Your task to perform on an android device: Open notification settings Image 0: 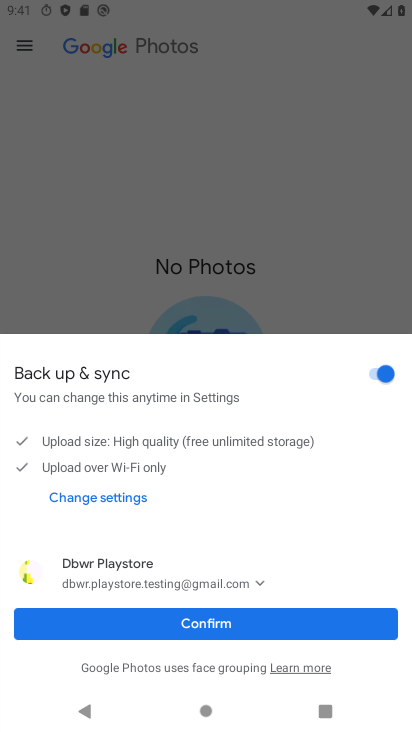
Step 0: click (230, 626)
Your task to perform on an android device: Open notification settings Image 1: 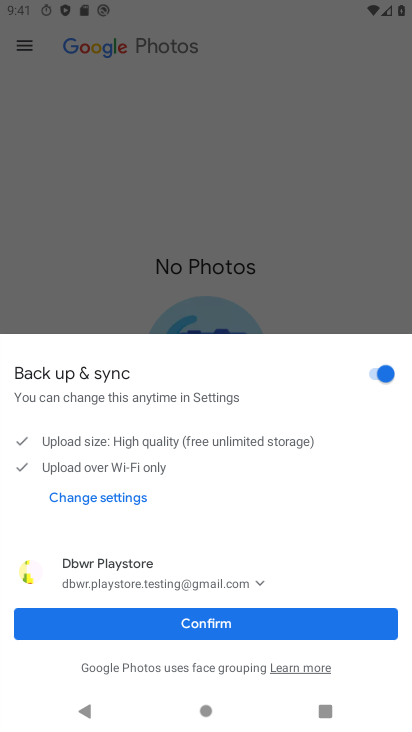
Step 1: click (230, 625)
Your task to perform on an android device: Open notification settings Image 2: 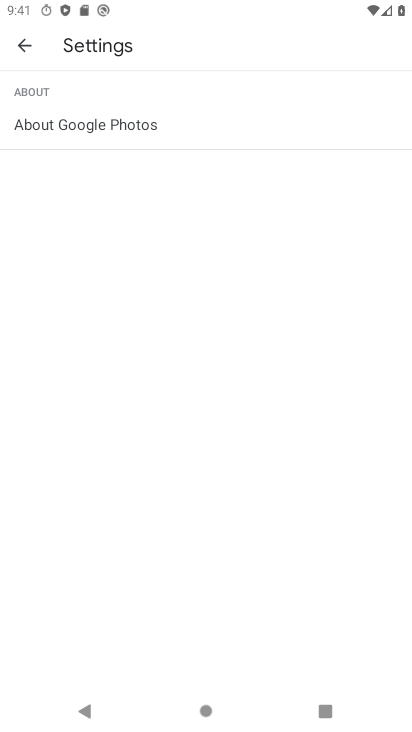
Step 2: click (17, 35)
Your task to perform on an android device: Open notification settings Image 3: 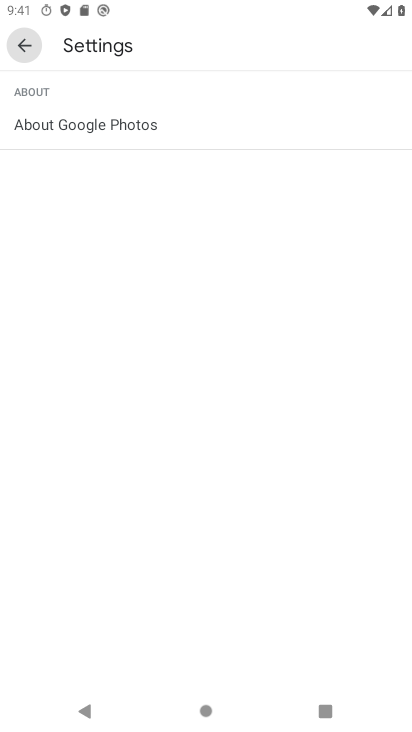
Step 3: click (19, 41)
Your task to perform on an android device: Open notification settings Image 4: 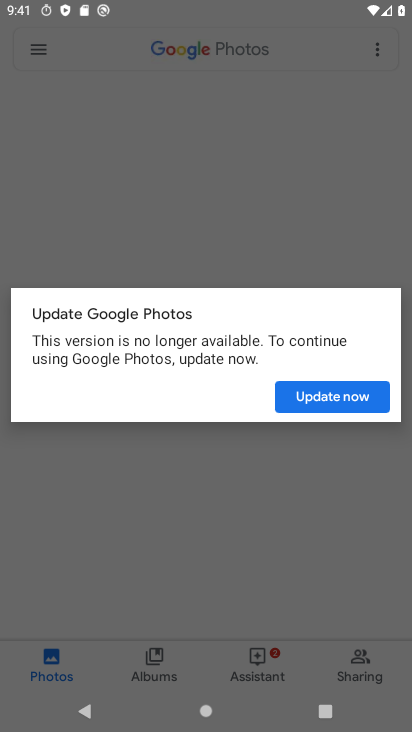
Step 4: press home button
Your task to perform on an android device: Open notification settings Image 5: 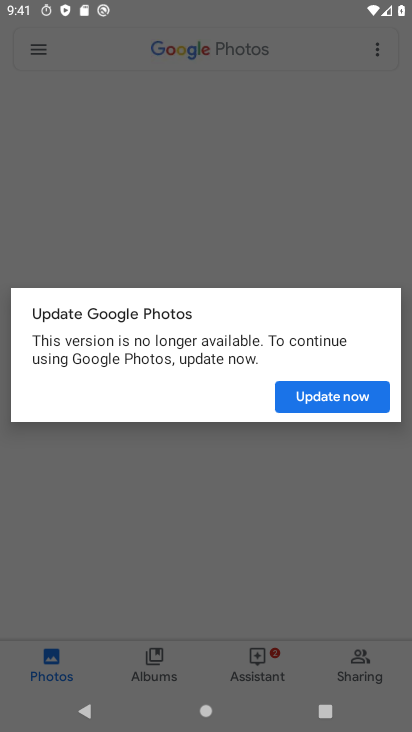
Step 5: press home button
Your task to perform on an android device: Open notification settings Image 6: 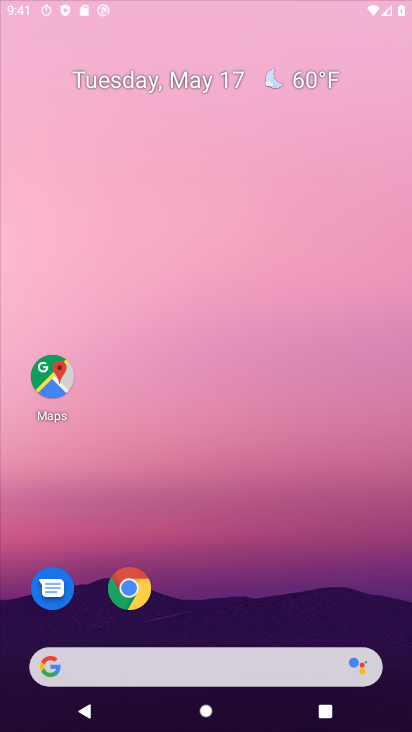
Step 6: press home button
Your task to perform on an android device: Open notification settings Image 7: 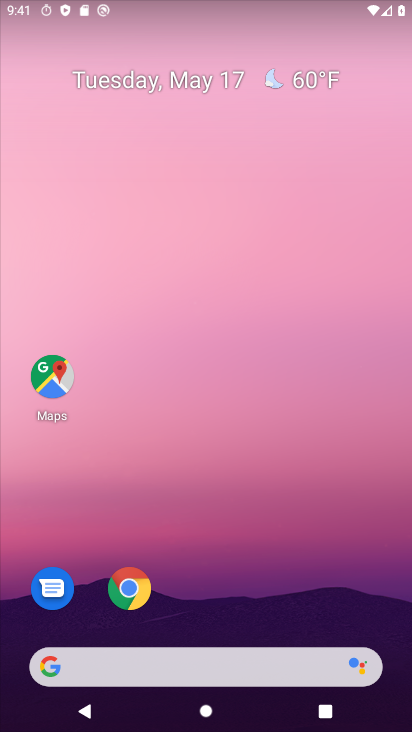
Step 7: press home button
Your task to perform on an android device: Open notification settings Image 8: 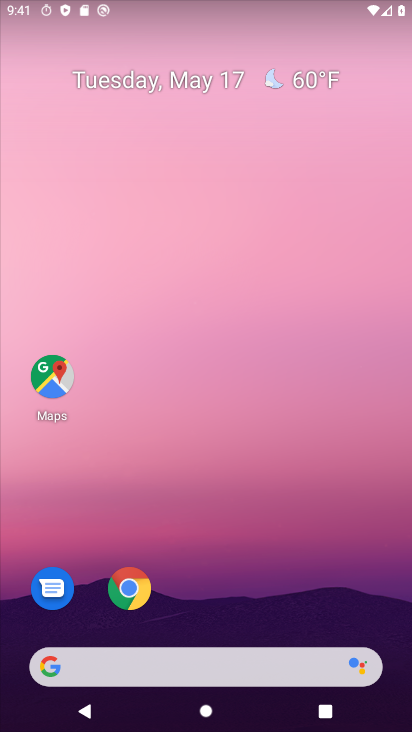
Step 8: drag from (279, 717) to (170, 55)
Your task to perform on an android device: Open notification settings Image 9: 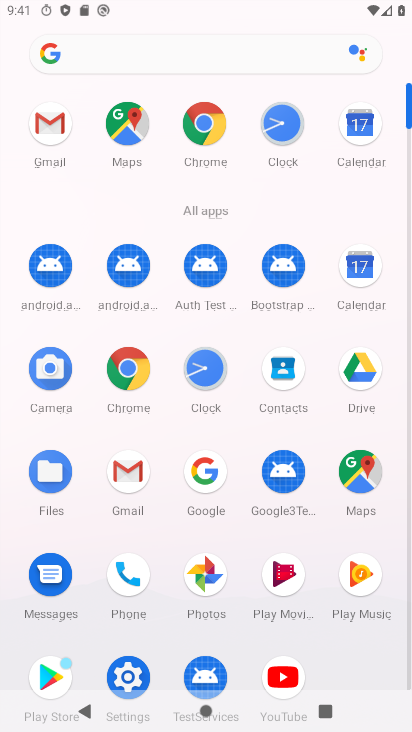
Step 9: click (133, 680)
Your task to perform on an android device: Open notification settings Image 10: 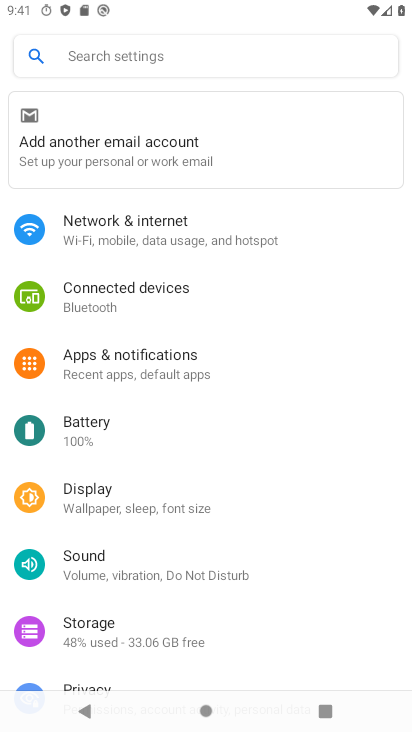
Step 10: drag from (155, 532) to (131, 155)
Your task to perform on an android device: Open notification settings Image 11: 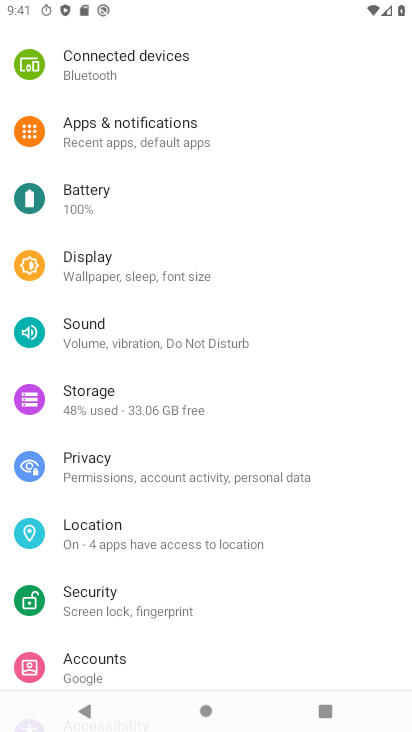
Step 11: drag from (175, 535) to (119, 194)
Your task to perform on an android device: Open notification settings Image 12: 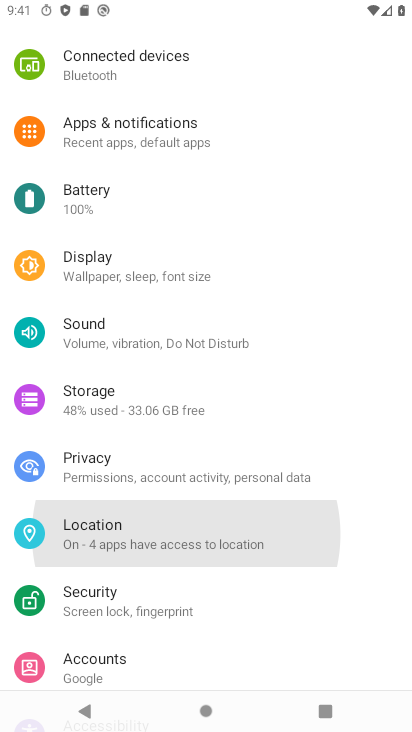
Step 12: drag from (204, 477) to (174, 212)
Your task to perform on an android device: Open notification settings Image 13: 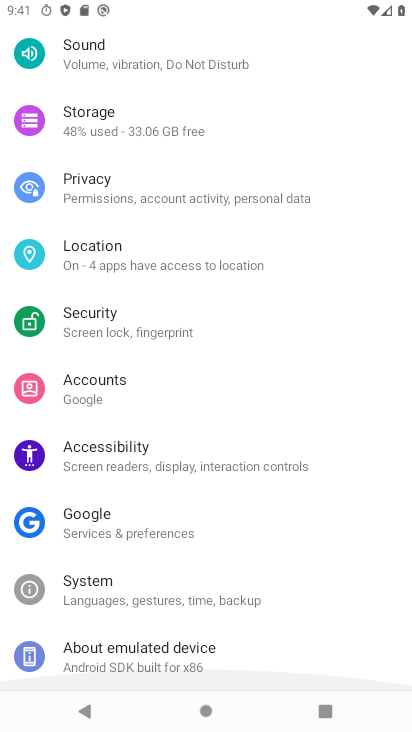
Step 13: drag from (249, 464) to (222, 209)
Your task to perform on an android device: Open notification settings Image 14: 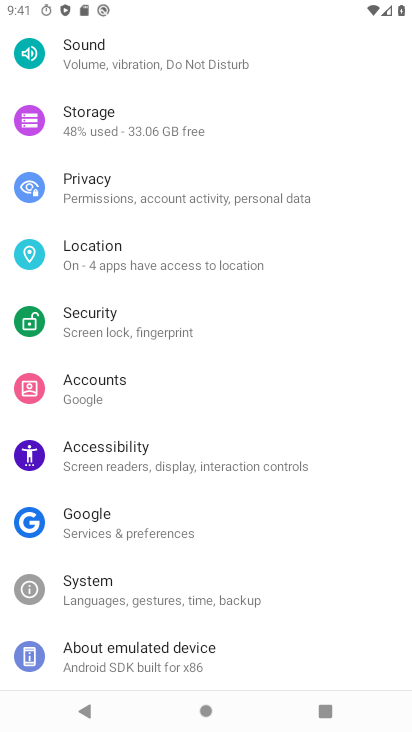
Step 14: drag from (108, 172) to (173, 644)
Your task to perform on an android device: Open notification settings Image 15: 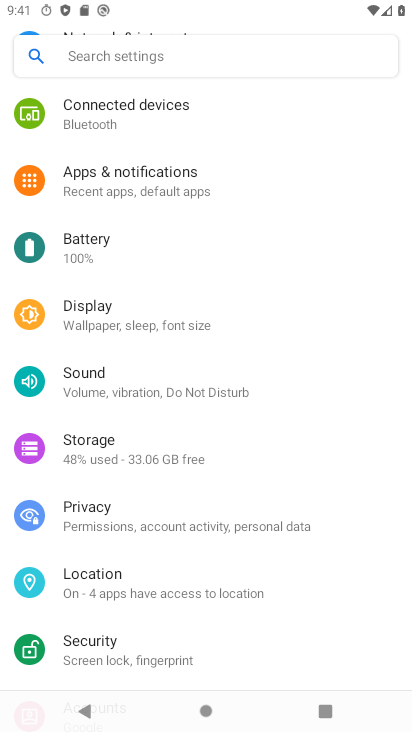
Step 15: click (147, 178)
Your task to perform on an android device: Open notification settings Image 16: 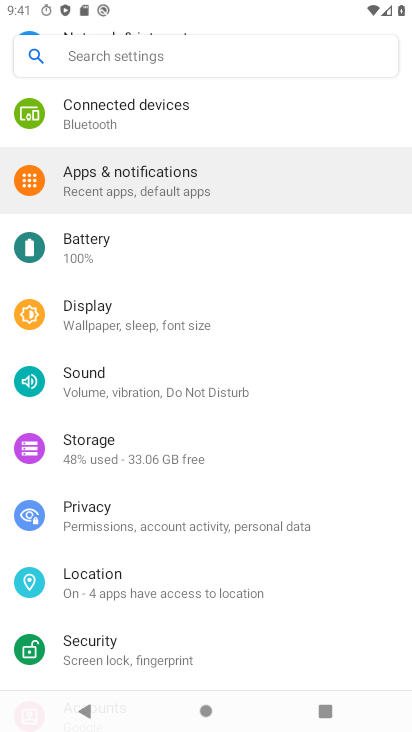
Step 16: click (147, 178)
Your task to perform on an android device: Open notification settings Image 17: 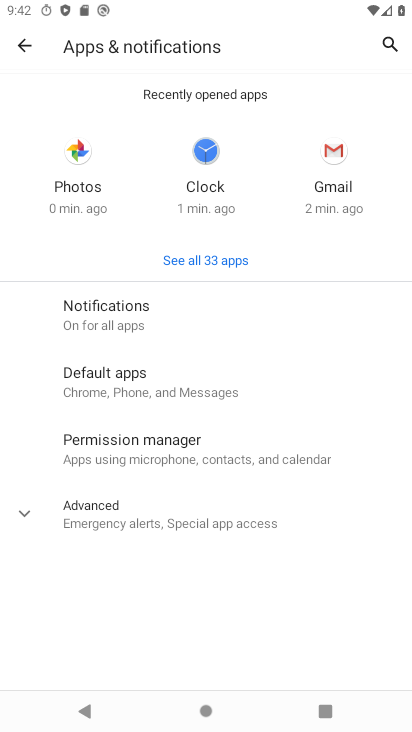
Step 17: click (101, 326)
Your task to perform on an android device: Open notification settings Image 18: 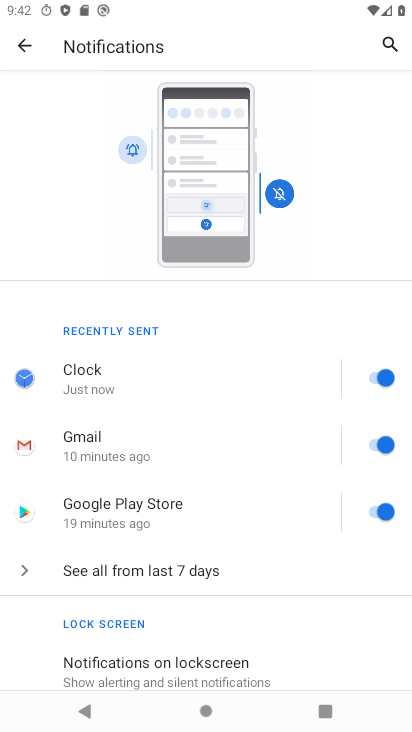
Step 18: drag from (181, 560) to (85, 182)
Your task to perform on an android device: Open notification settings Image 19: 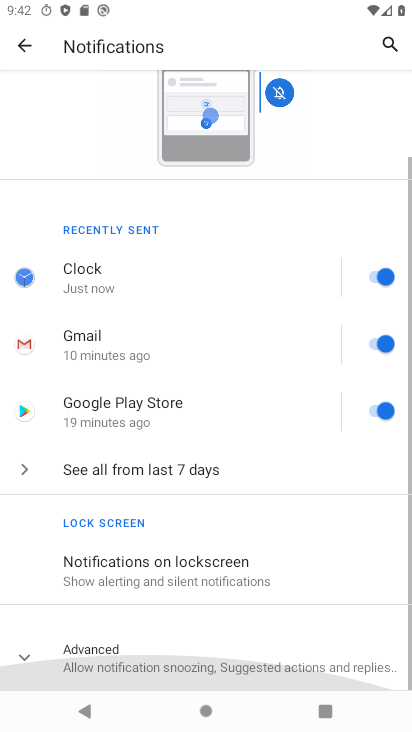
Step 19: drag from (240, 574) to (186, 199)
Your task to perform on an android device: Open notification settings Image 20: 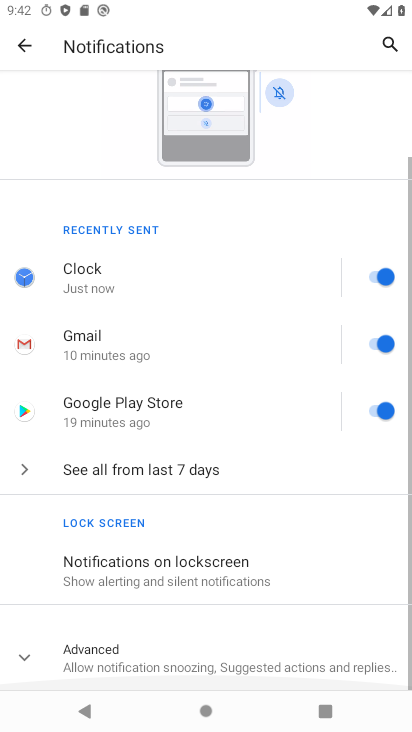
Step 20: drag from (170, 181) to (156, 15)
Your task to perform on an android device: Open notification settings Image 21: 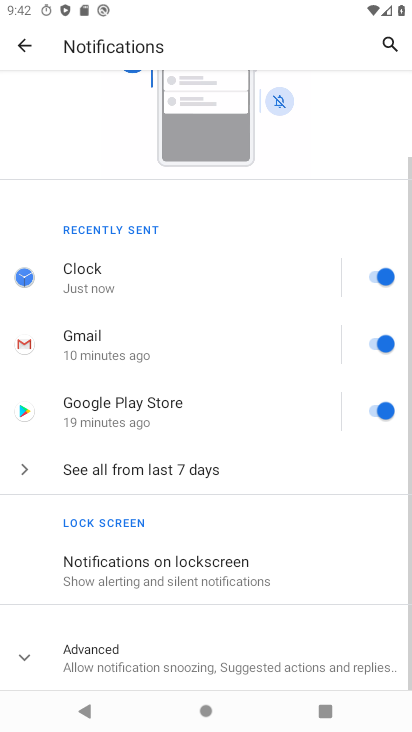
Step 21: drag from (208, 421) to (165, 76)
Your task to perform on an android device: Open notification settings Image 22: 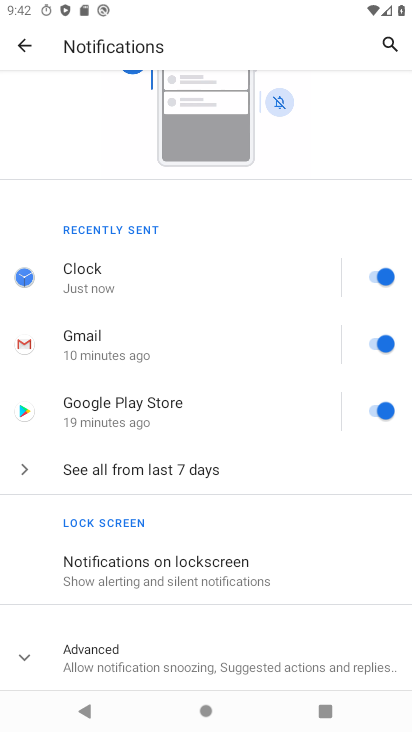
Step 22: click (188, 279)
Your task to perform on an android device: Open notification settings Image 23: 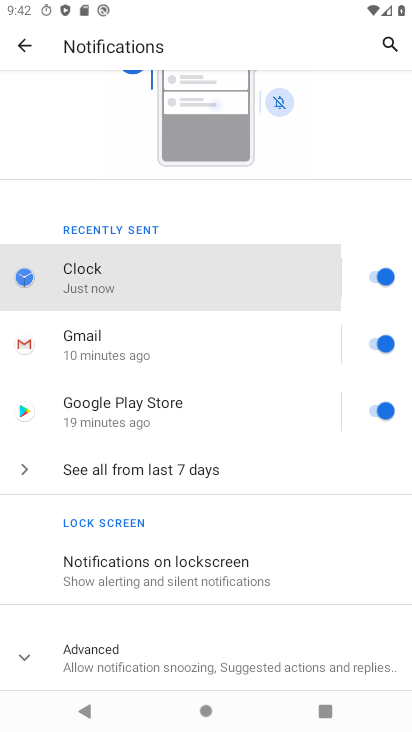
Step 23: drag from (223, 494) to (184, 235)
Your task to perform on an android device: Open notification settings Image 24: 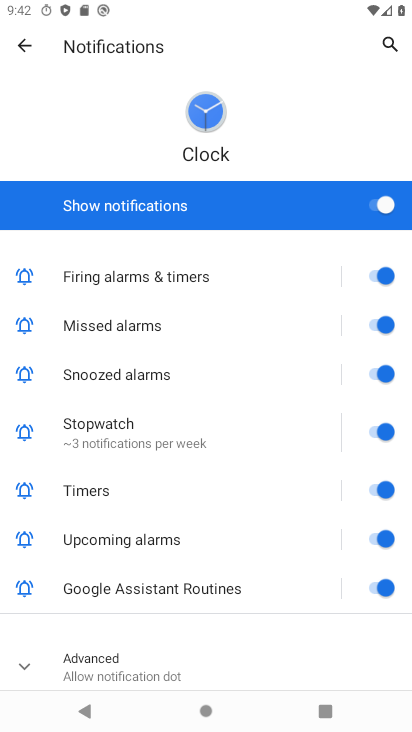
Step 24: click (20, 41)
Your task to perform on an android device: Open notification settings Image 25: 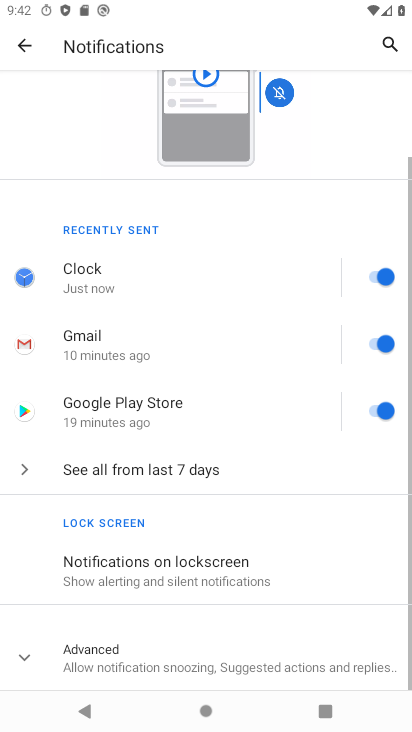
Step 25: click (104, 273)
Your task to perform on an android device: Open notification settings Image 26: 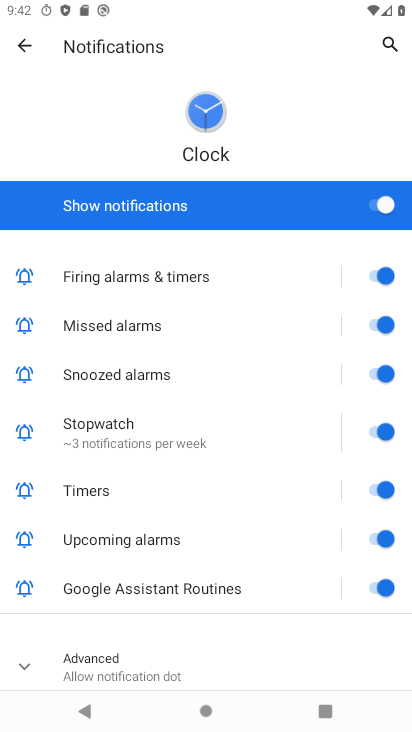
Step 26: click (25, 42)
Your task to perform on an android device: Open notification settings Image 27: 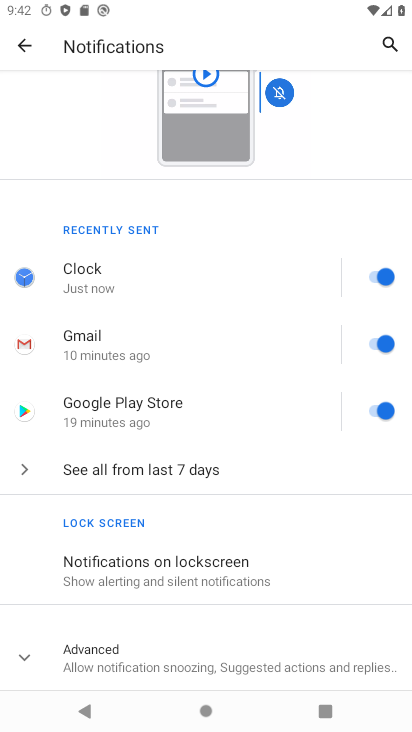
Step 27: click (101, 339)
Your task to perform on an android device: Open notification settings Image 28: 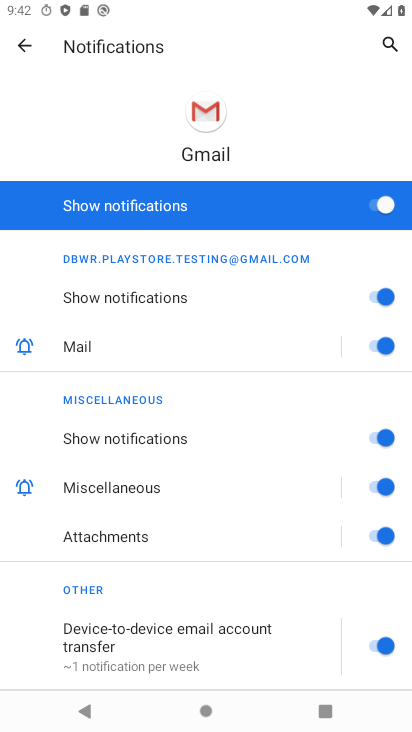
Step 28: click (23, 39)
Your task to perform on an android device: Open notification settings Image 29: 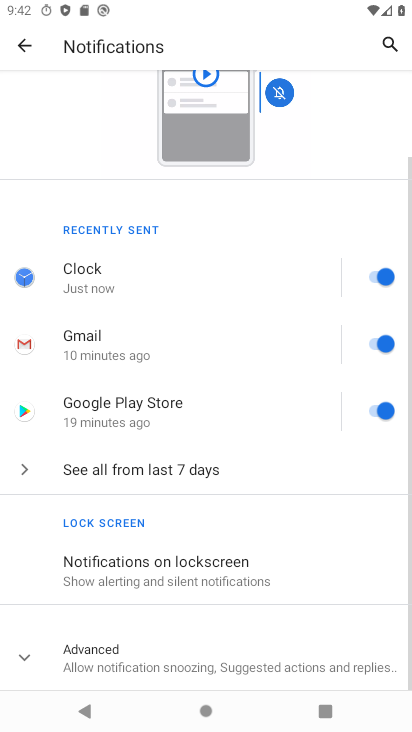
Step 29: click (170, 411)
Your task to perform on an android device: Open notification settings Image 30: 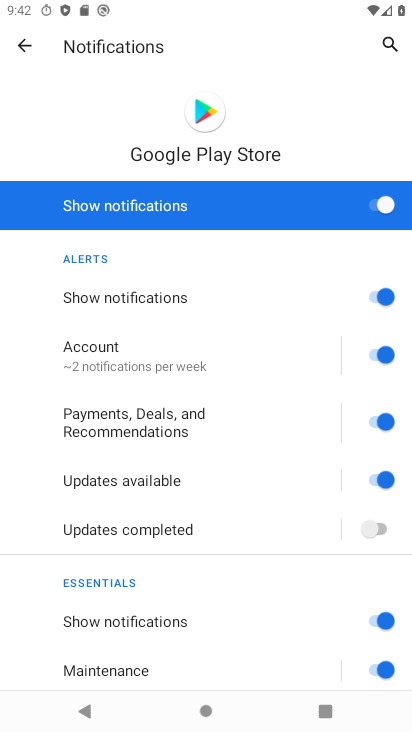
Step 30: click (19, 49)
Your task to perform on an android device: Open notification settings Image 31: 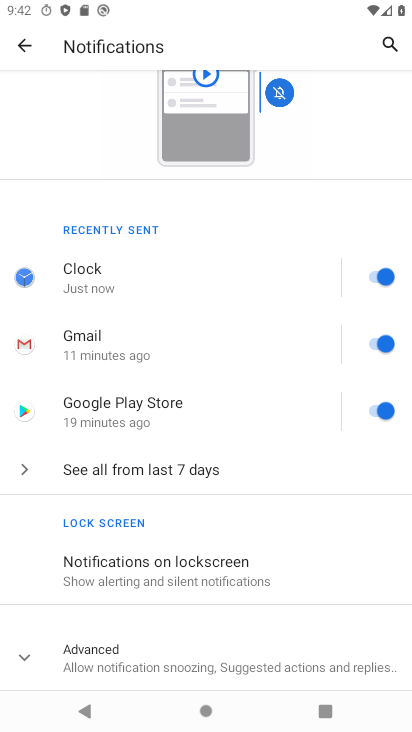
Step 31: click (212, 462)
Your task to perform on an android device: Open notification settings Image 32: 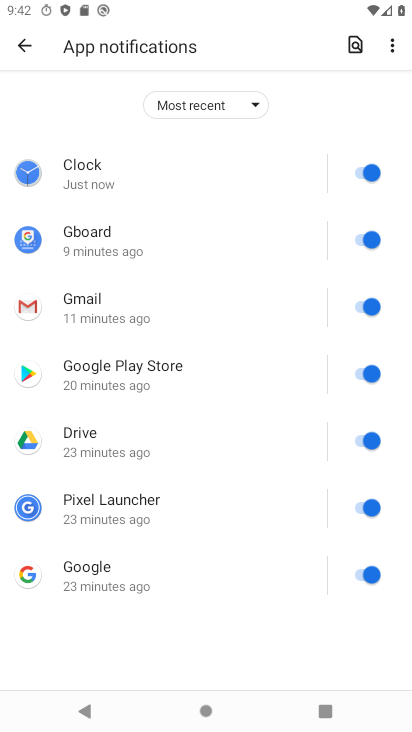
Step 32: click (13, 33)
Your task to perform on an android device: Open notification settings Image 33: 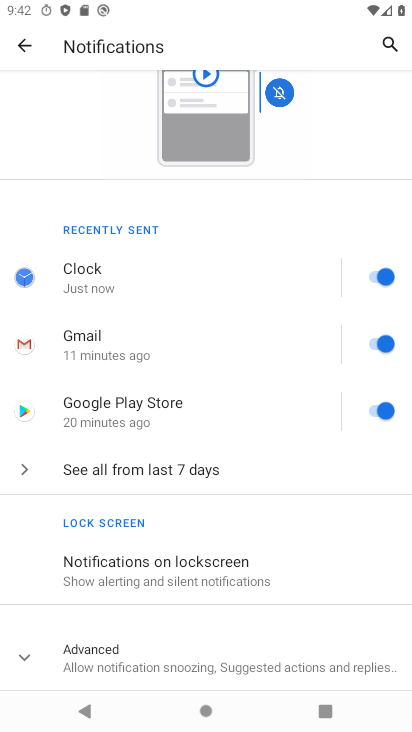
Step 33: task complete